Your task to perform on an android device: Open calendar and show me the first week of next month Image 0: 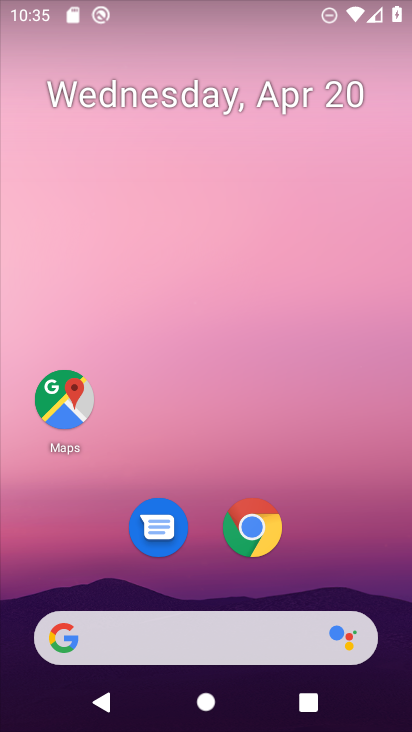
Step 0: drag from (219, 578) to (182, 20)
Your task to perform on an android device: Open calendar and show me the first week of next month Image 1: 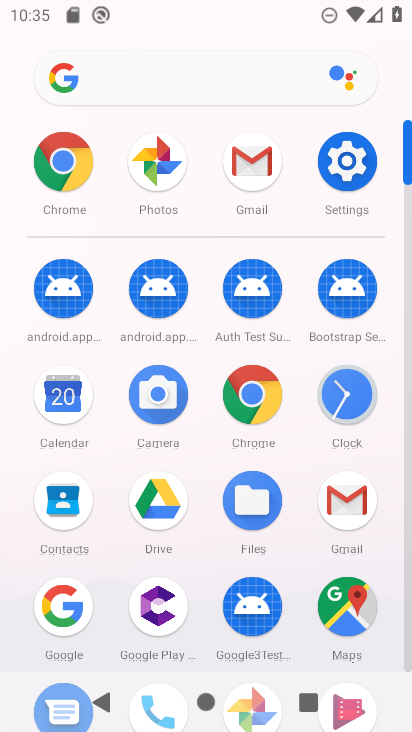
Step 1: click (55, 419)
Your task to perform on an android device: Open calendar and show me the first week of next month Image 2: 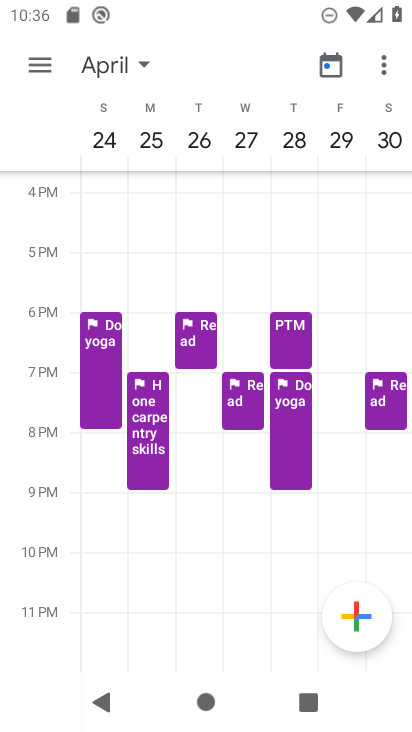
Step 2: click (41, 63)
Your task to perform on an android device: Open calendar and show me the first week of next month Image 3: 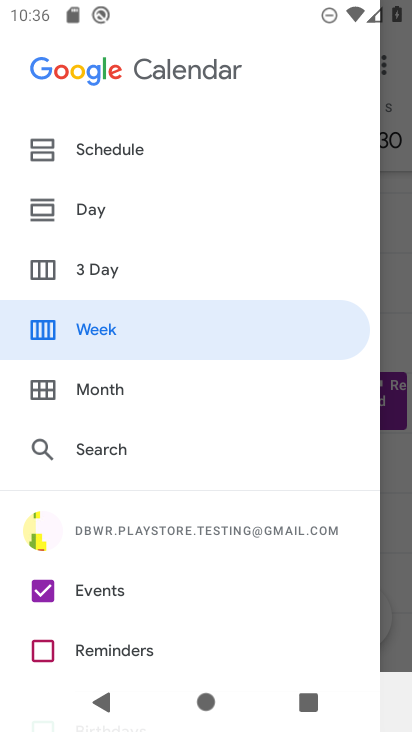
Step 3: click (152, 331)
Your task to perform on an android device: Open calendar and show me the first week of next month Image 4: 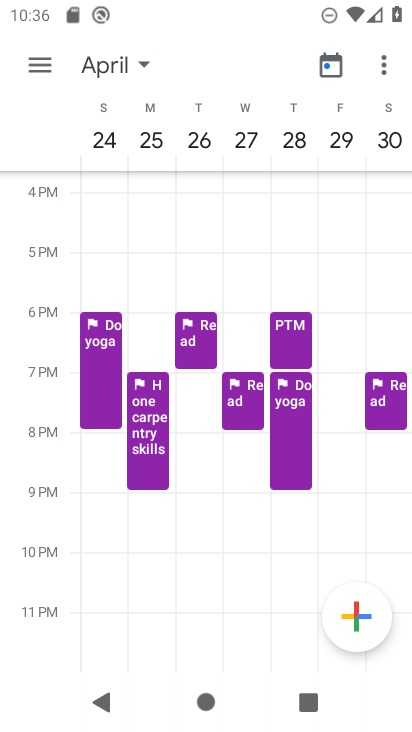
Step 4: task complete